Your task to perform on an android device: Open ESPN.com Image 0: 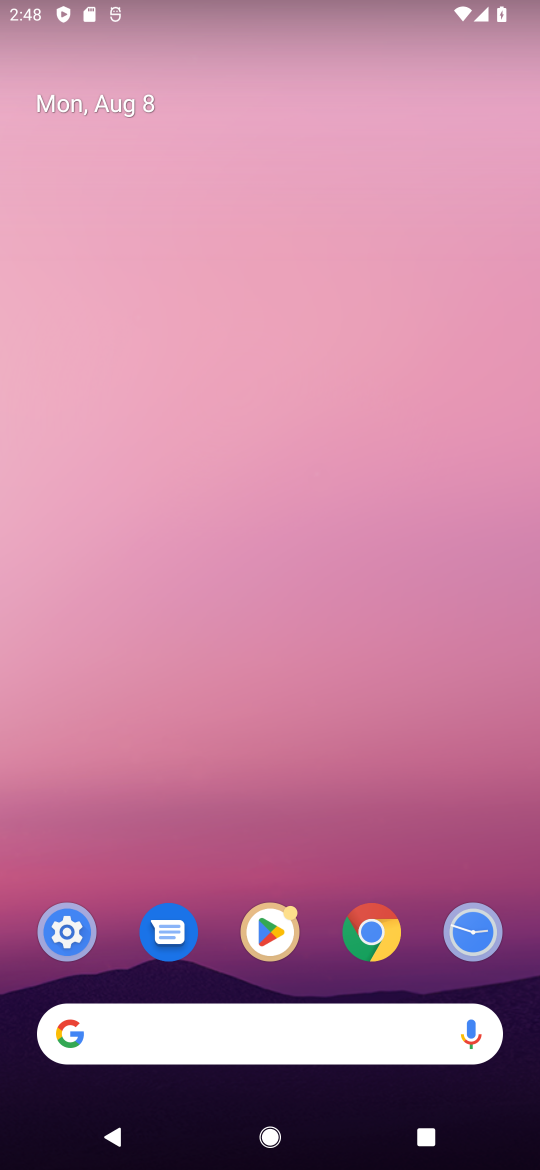
Step 0: click (315, 1035)
Your task to perform on an android device: Open ESPN.com Image 1: 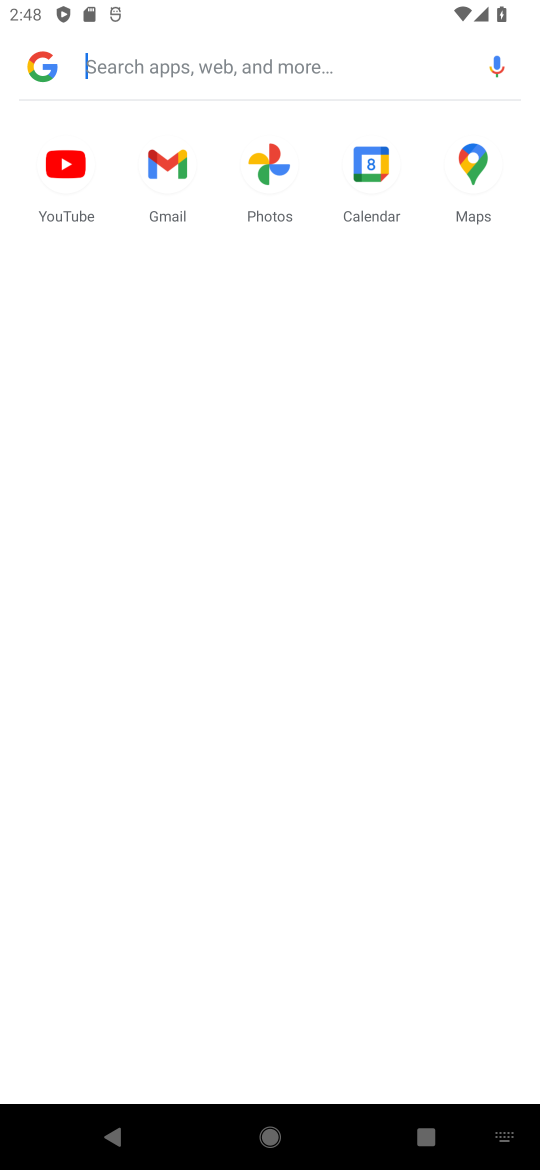
Step 1: type "espn.com"
Your task to perform on an android device: Open ESPN.com Image 2: 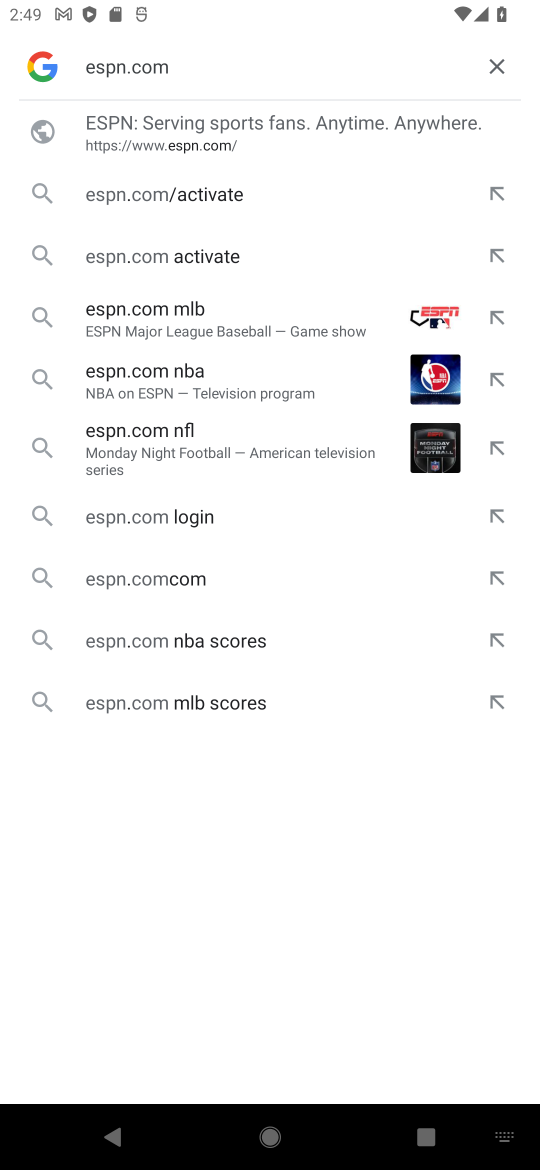
Step 2: click (242, 133)
Your task to perform on an android device: Open ESPN.com Image 3: 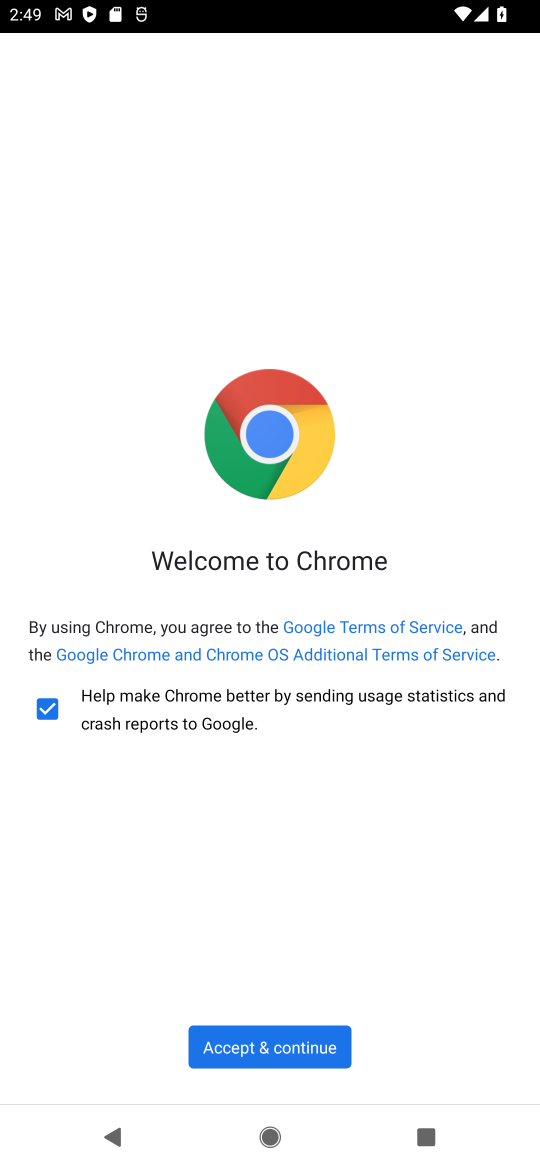
Step 3: click (292, 1052)
Your task to perform on an android device: Open ESPN.com Image 4: 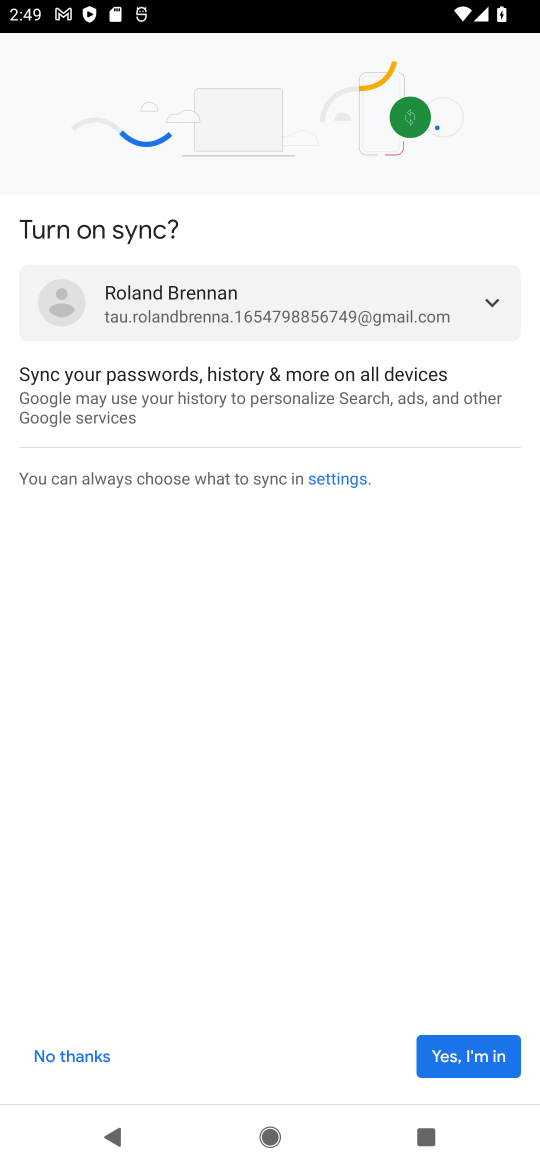
Step 4: click (454, 1056)
Your task to perform on an android device: Open ESPN.com Image 5: 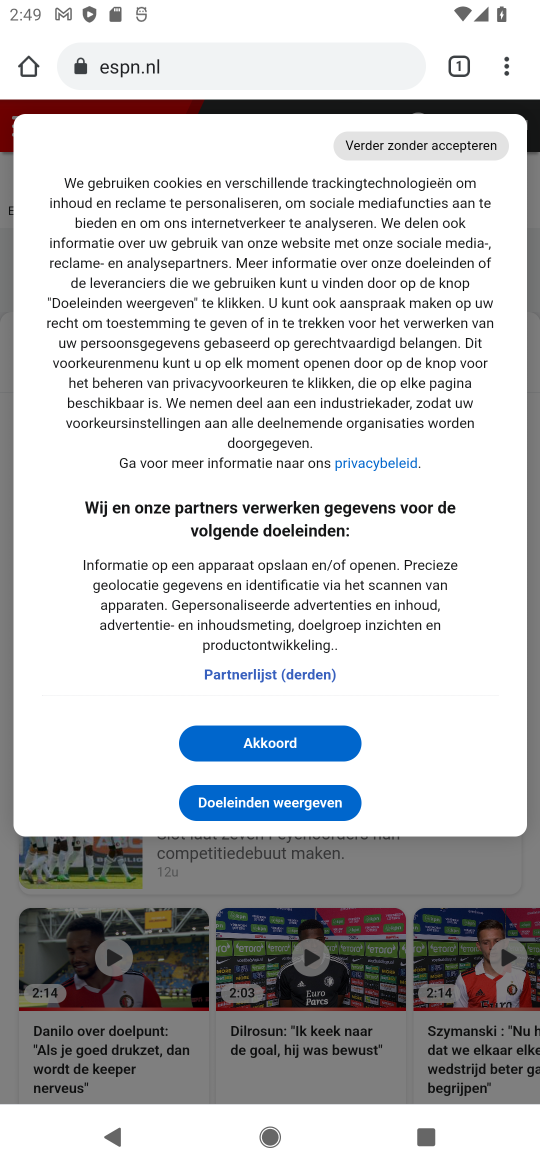
Step 5: task complete